Your task to perform on an android device: Do I have any events tomorrow? Image 0: 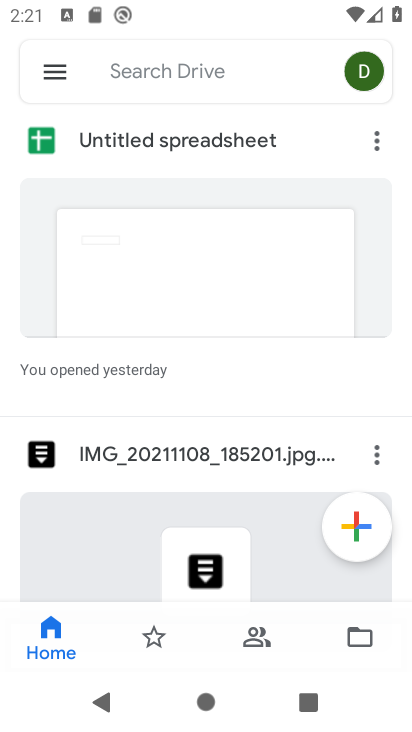
Step 0: press home button
Your task to perform on an android device: Do I have any events tomorrow? Image 1: 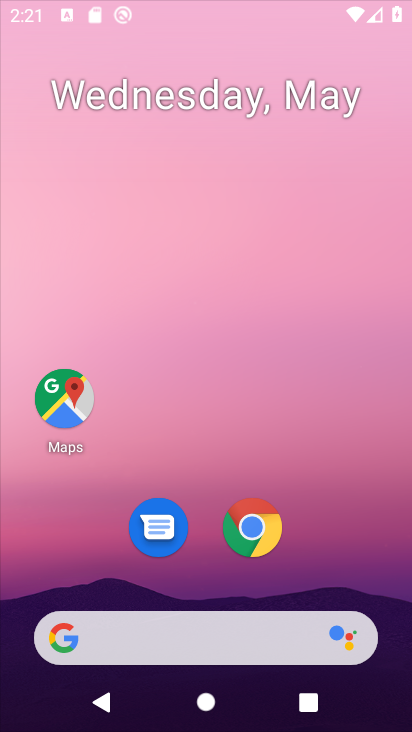
Step 1: drag from (295, 587) to (345, 63)
Your task to perform on an android device: Do I have any events tomorrow? Image 2: 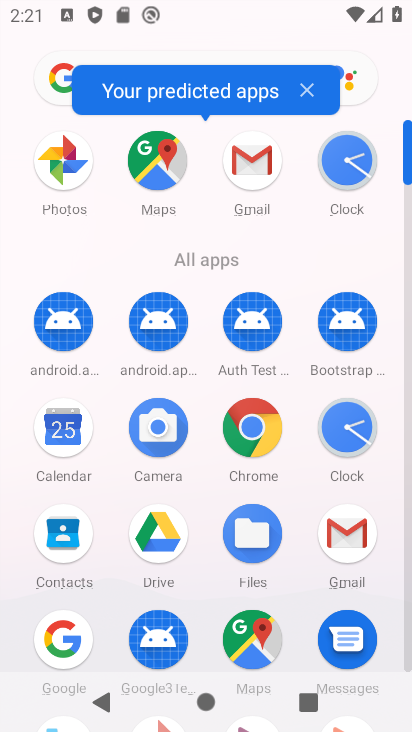
Step 2: click (65, 428)
Your task to perform on an android device: Do I have any events tomorrow? Image 3: 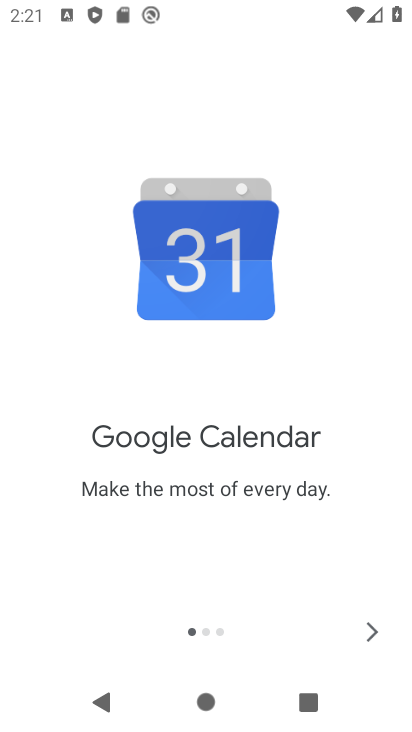
Step 3: click (372, 633)
Your task to perform on an android device: Do I have any events tomorrow? Image 4: 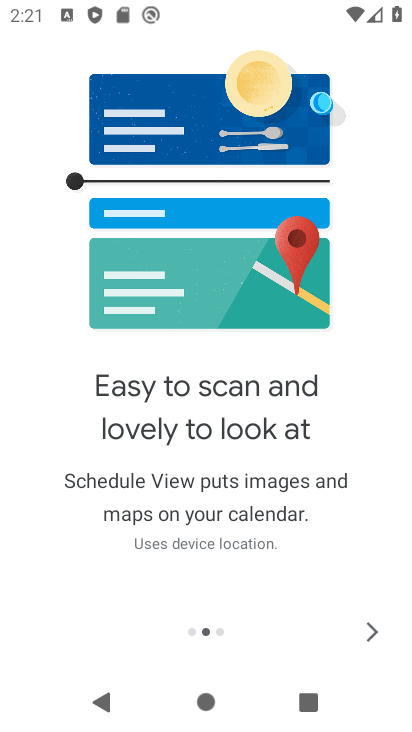
Step 4: click (372, 633)
Your task to perform on an android device: Do I have any events tomorrow? Image 5: 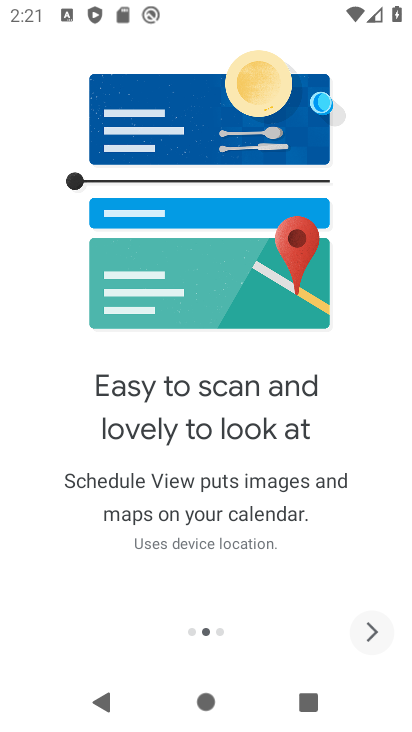
Step 5: click (372, 633)
Your task to perform on an android device: Do I have any events tomorrow? Image 6: 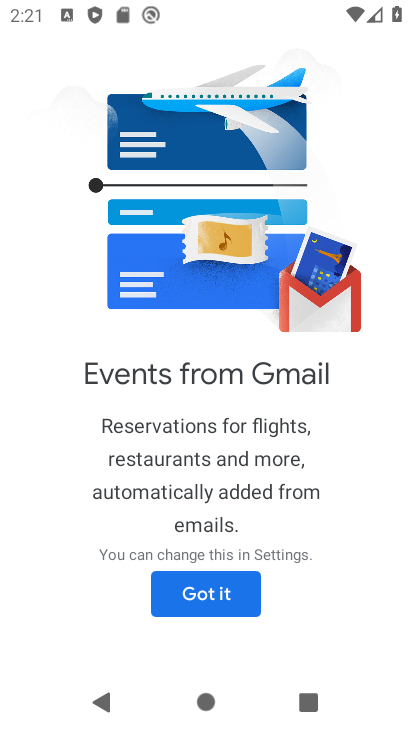
Step 6: click (248, 602)
Your task to perform on an android device: Do I have any events tomorrow? Image 7: 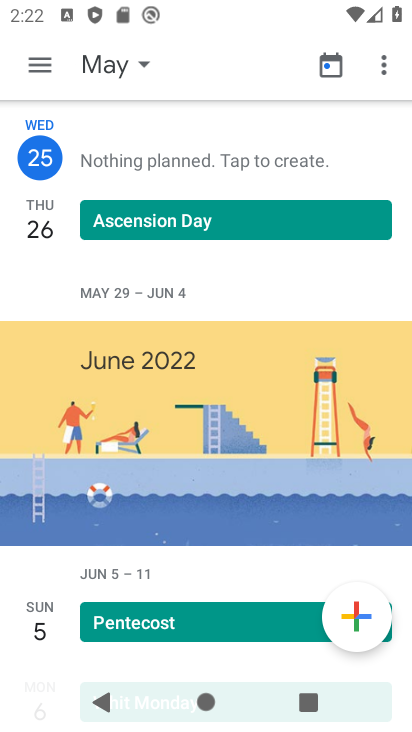
Step 7: click (137, 61)
Your task to perform on an android device: Do I have any events tomorrow? Image 8: 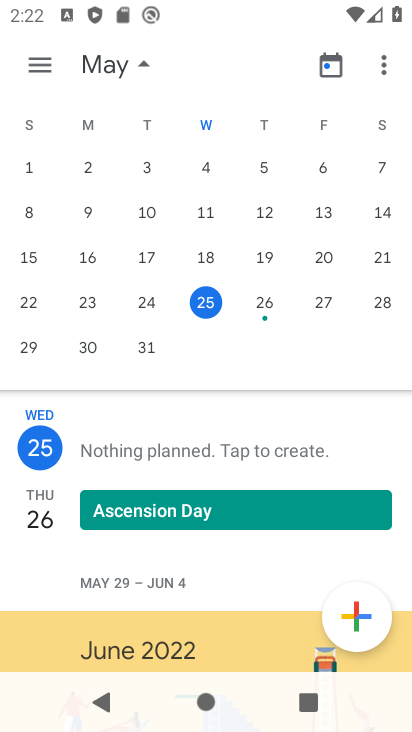
Step 8: click (265, 301)
Your task to perform on an android device: Do I have any events tomorrow? Image 9: 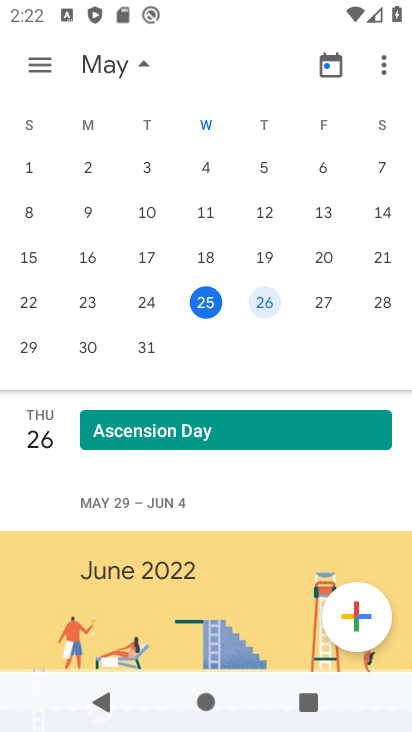
Step 9: task complete